Your task to perform on an android device: What's the weather going to be tomorrow? Image 0: 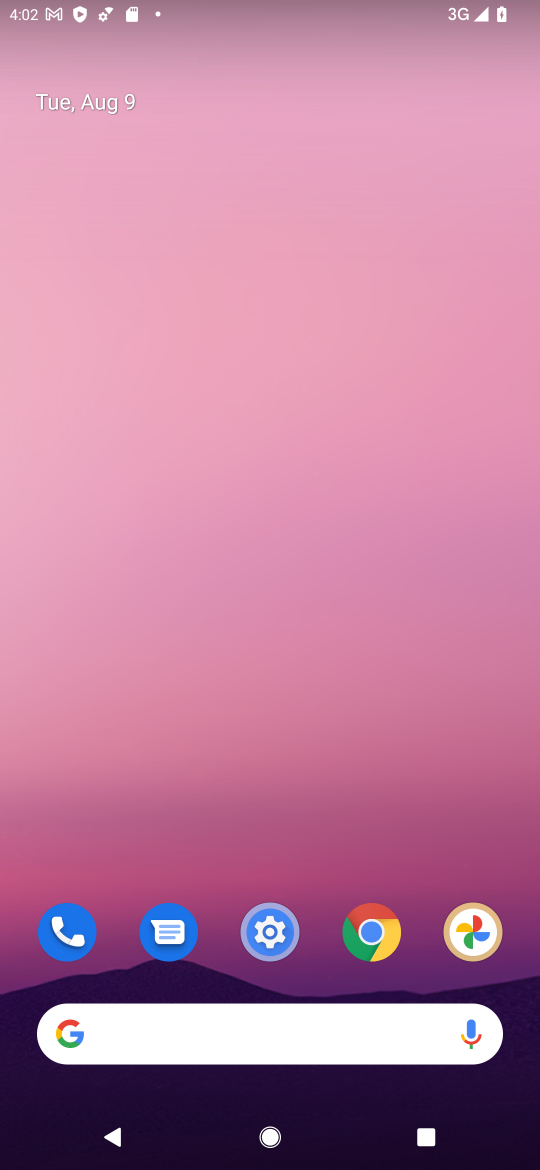
Step 0: drag from (361, 1012) to (329, 9)
Your task to perform on an android device: What's the weather going to be tomorrow? Image 1: 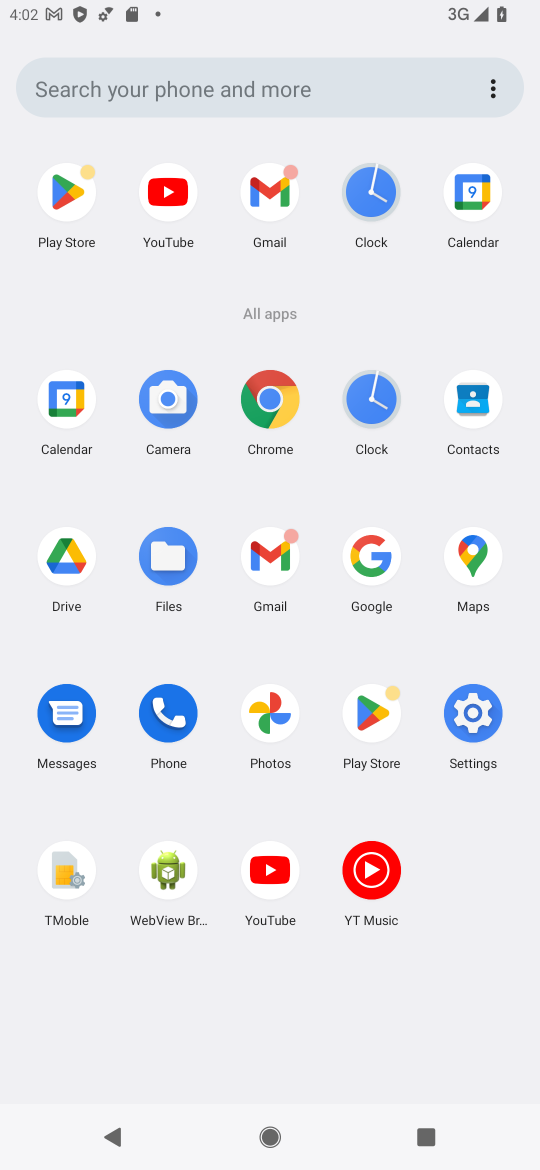
Step 1: click (368, 555)
Your task to perform on an android device: What's the weather going to be tomorrow? Image 2: 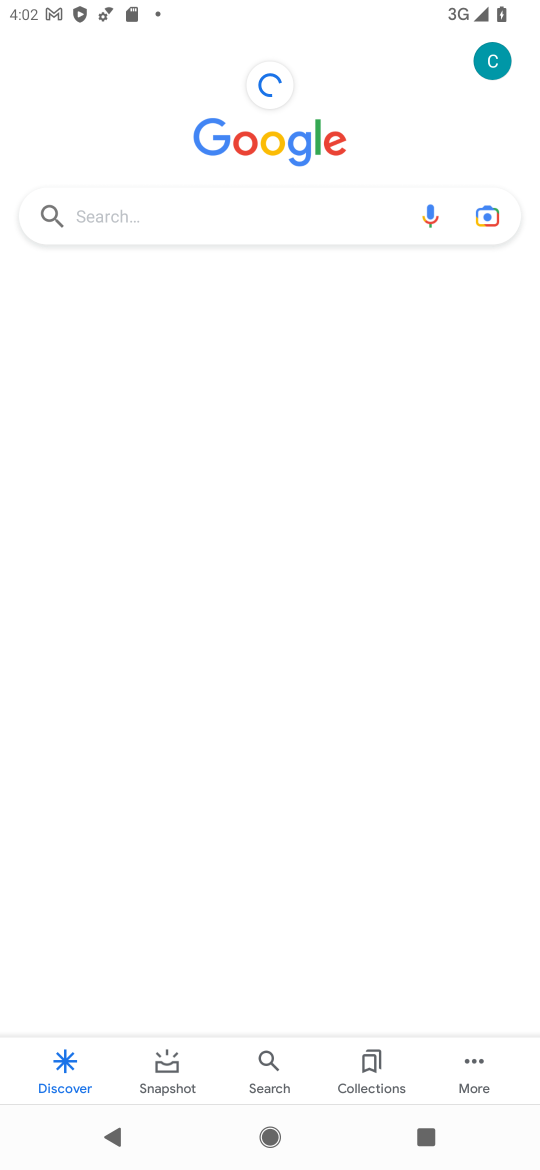
Step 2: click (246, 214)
Your task to perform on an android device: What's the weather going to be tomorrow? Image 3: 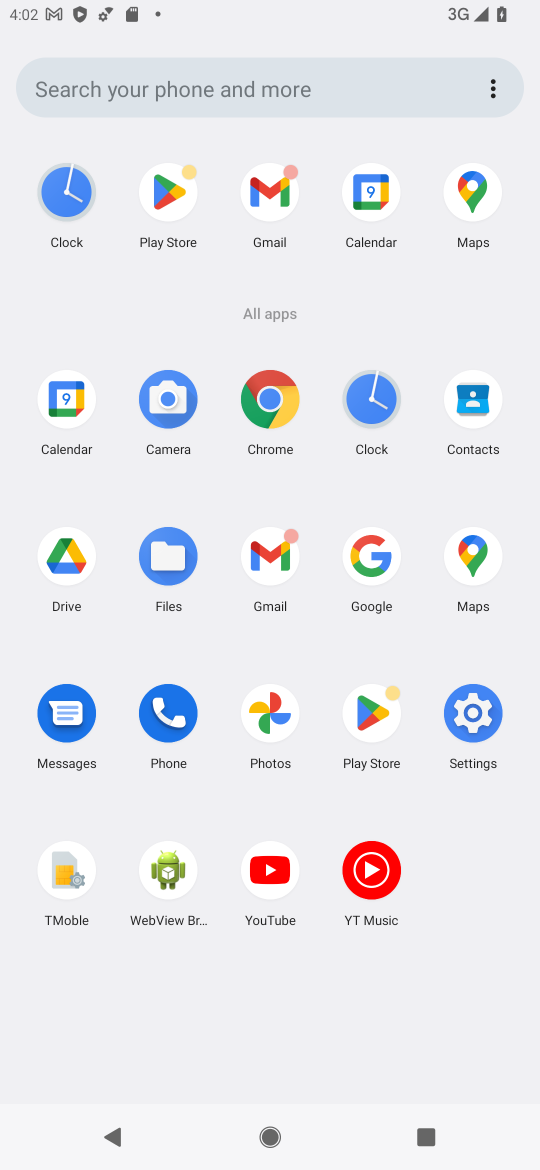
Step 3: click (382, 559)
Your task to perform on an android device: What's the weather going to be tomorrow? Image 4: 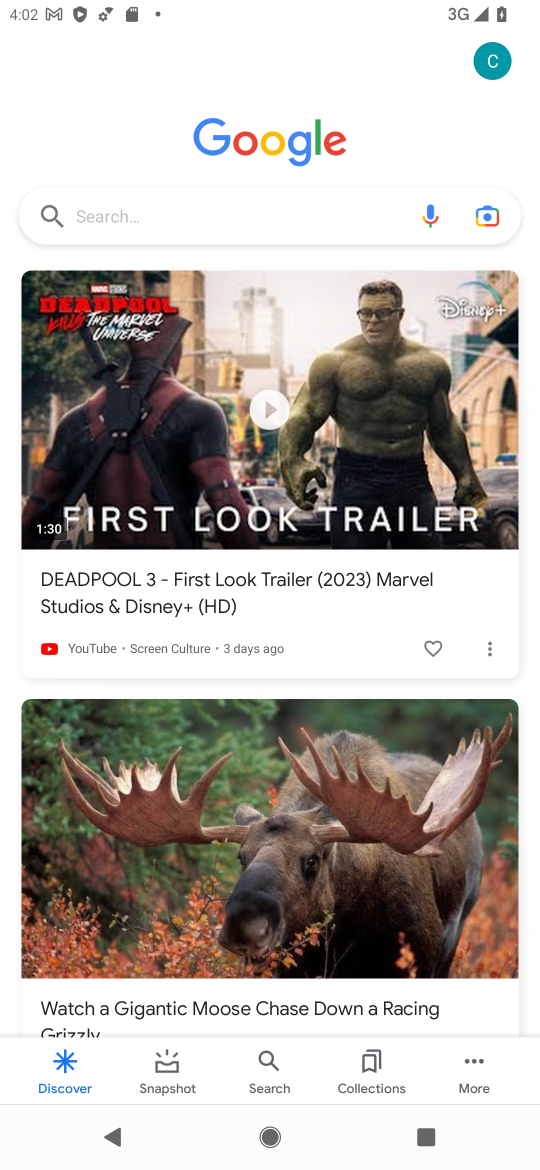
Step 4: click (194, 209)
Your task to perform on an android device: What's the weather going to be tomorrow? Image 5: 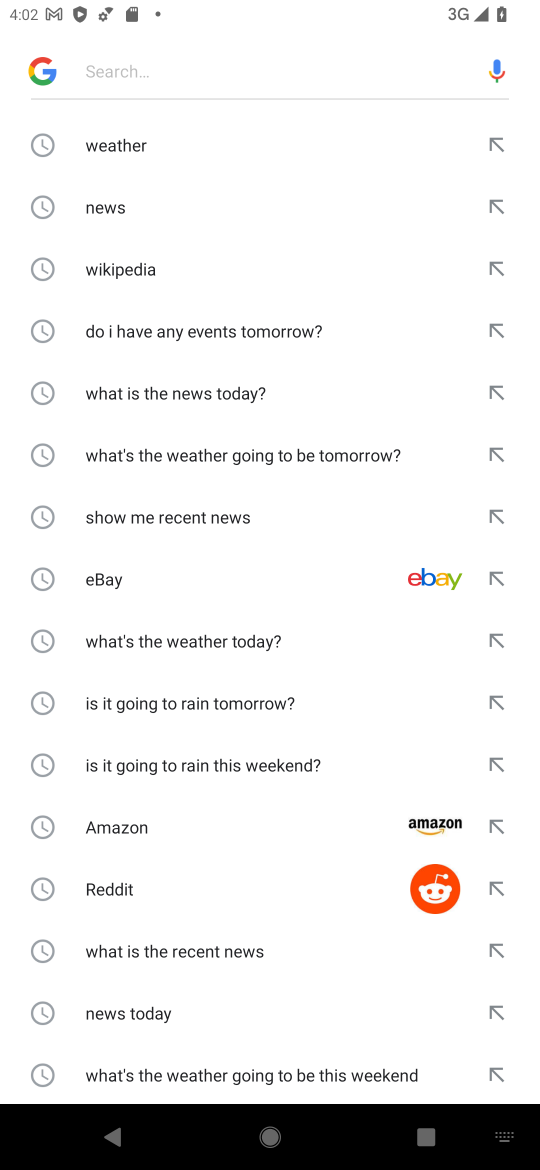
Step 5: click (221, 453)
Your task to perform on an android device: What's the weather going to be tomorrow? Image 6: 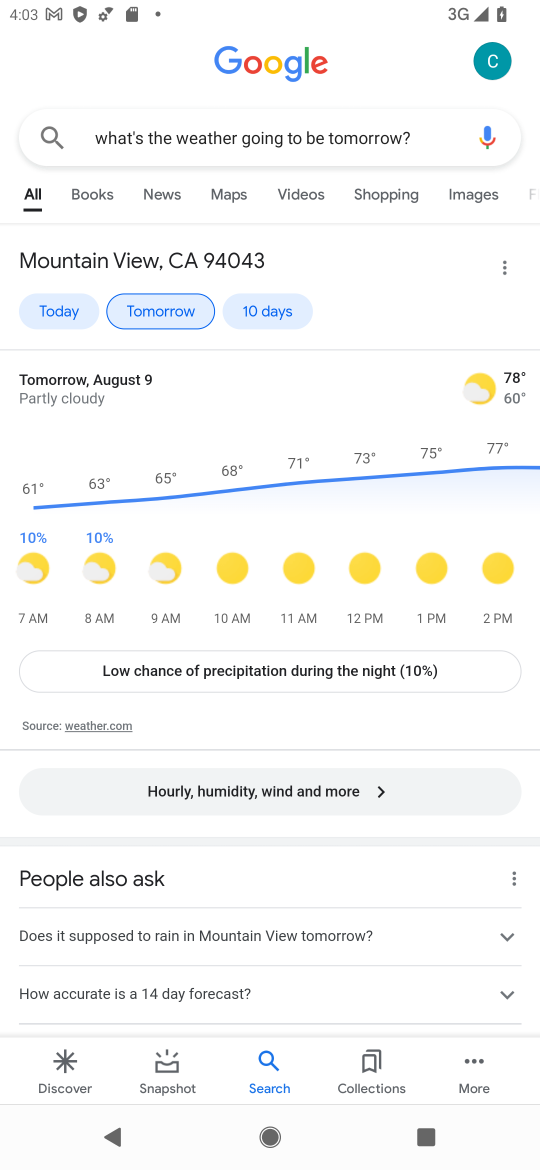
Step 6: task complete